Your task to perform on an android device: What's the weather? Image 0: 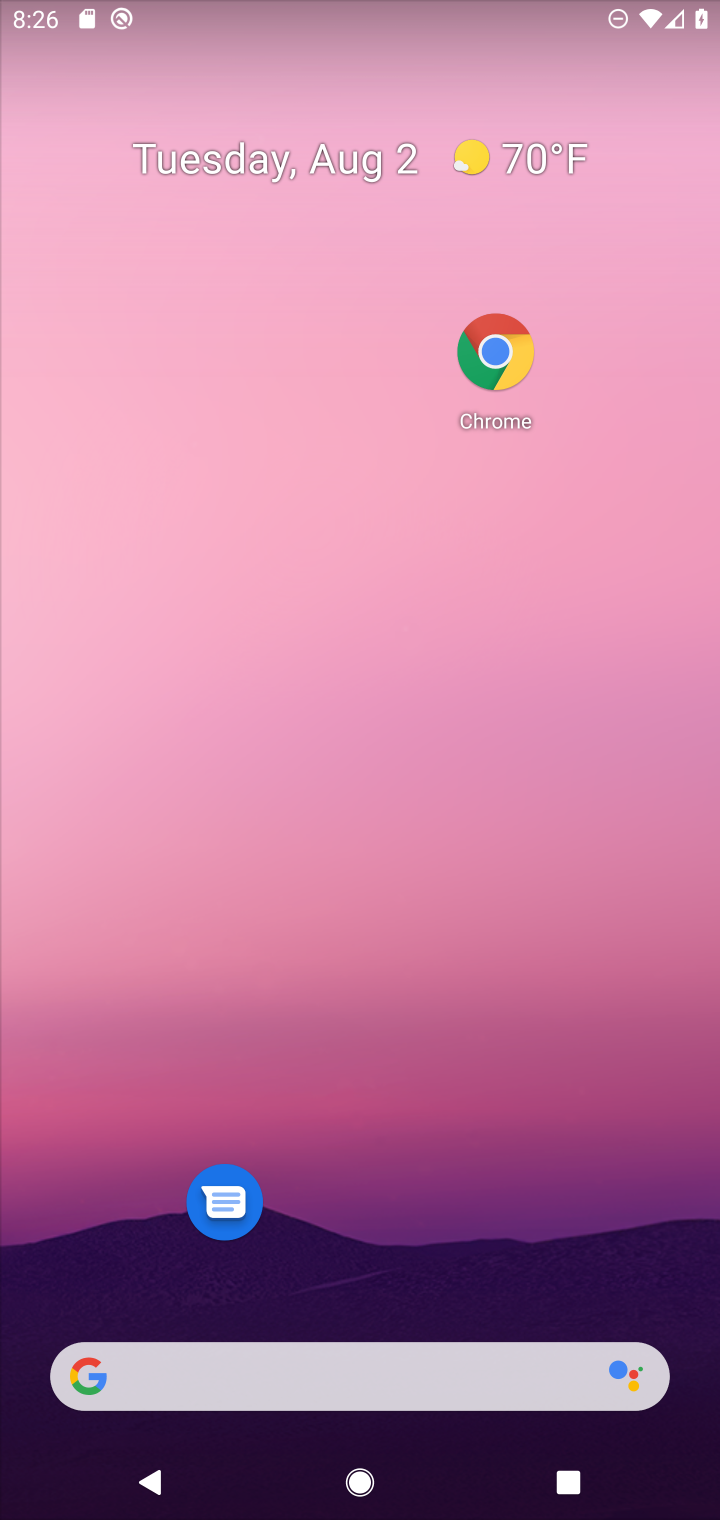
Step 0: click (152, 1369)
Your task to perform on an android device: What's the weather? Image 1: 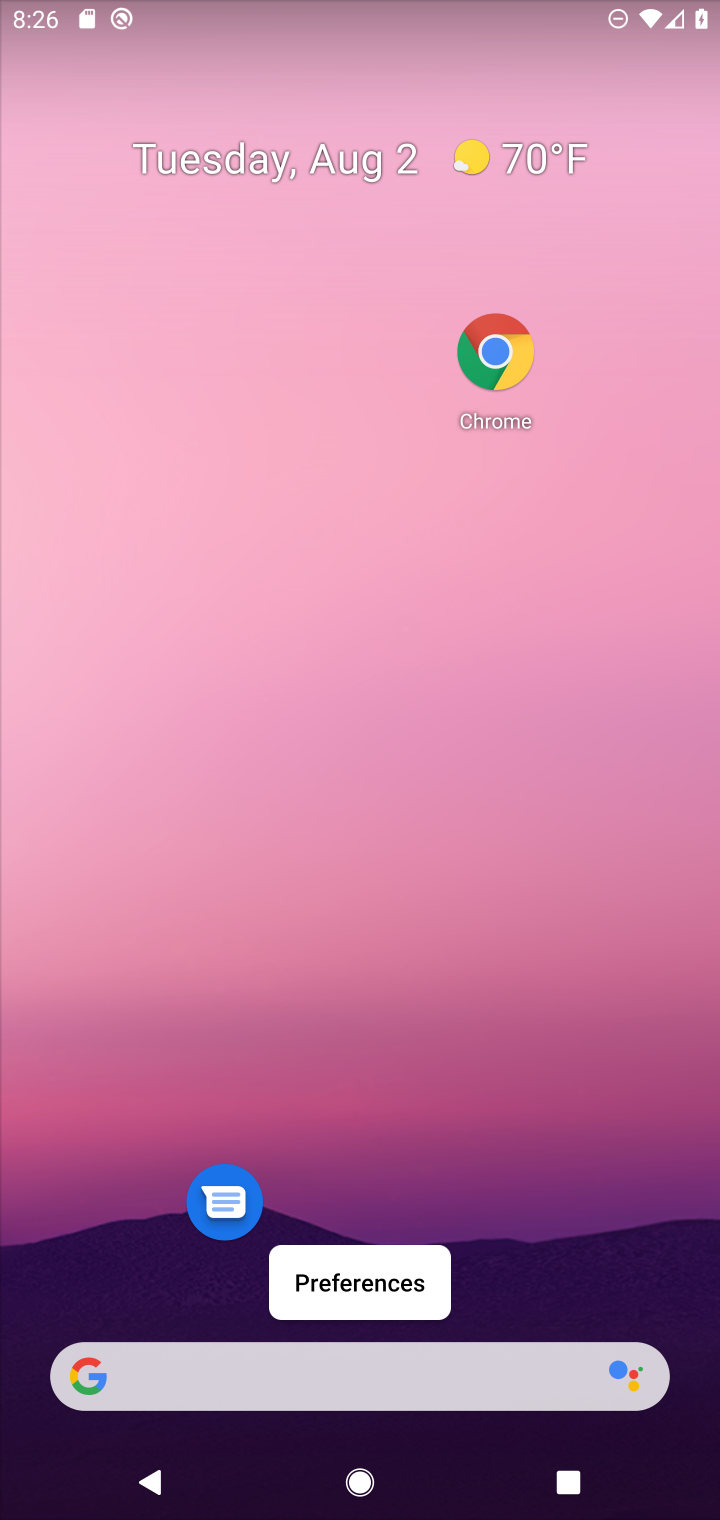
Step 1: click (186, 1388)
Your task to perform on an android device: What's the weather? Image 2: 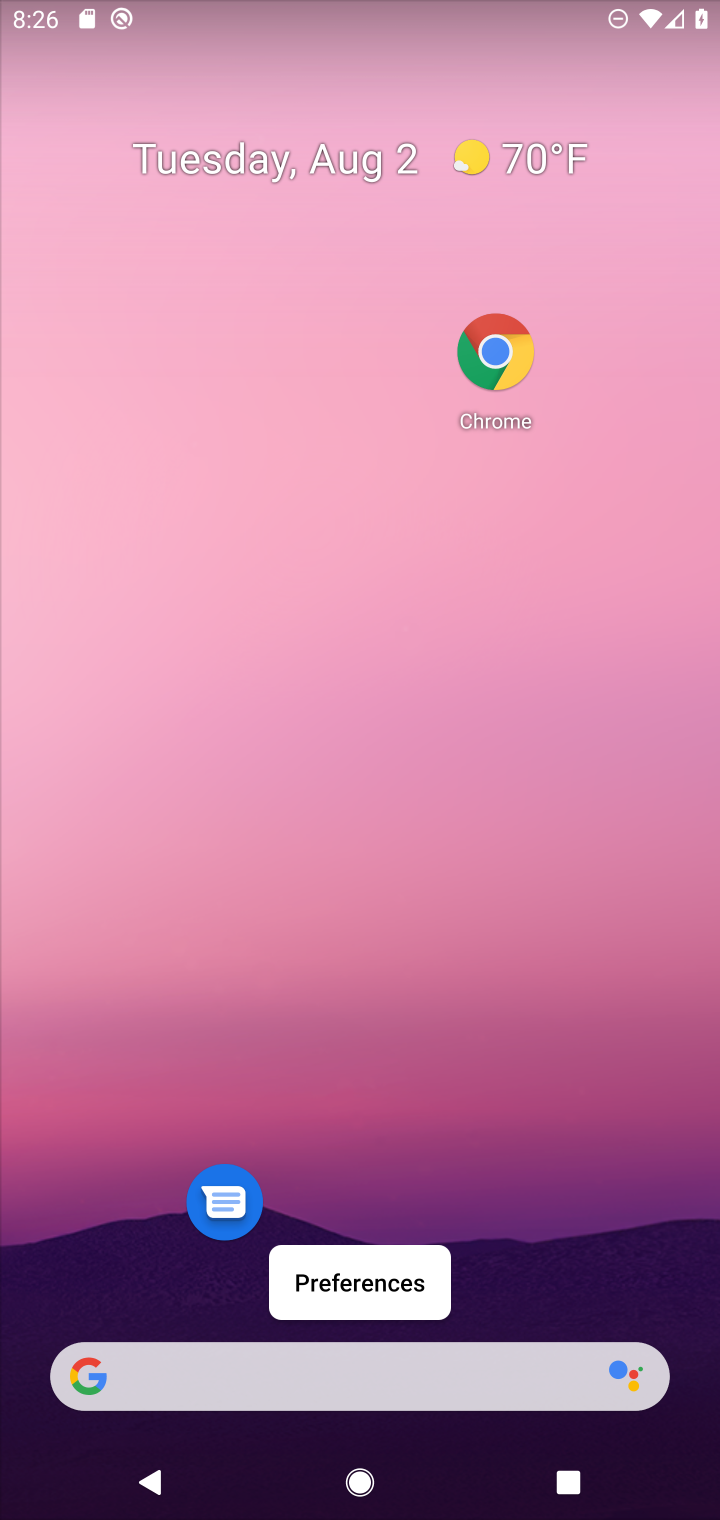
Step 2: click (169, 1371)
Your task to perform on an android device: What's the weather? Image 3: 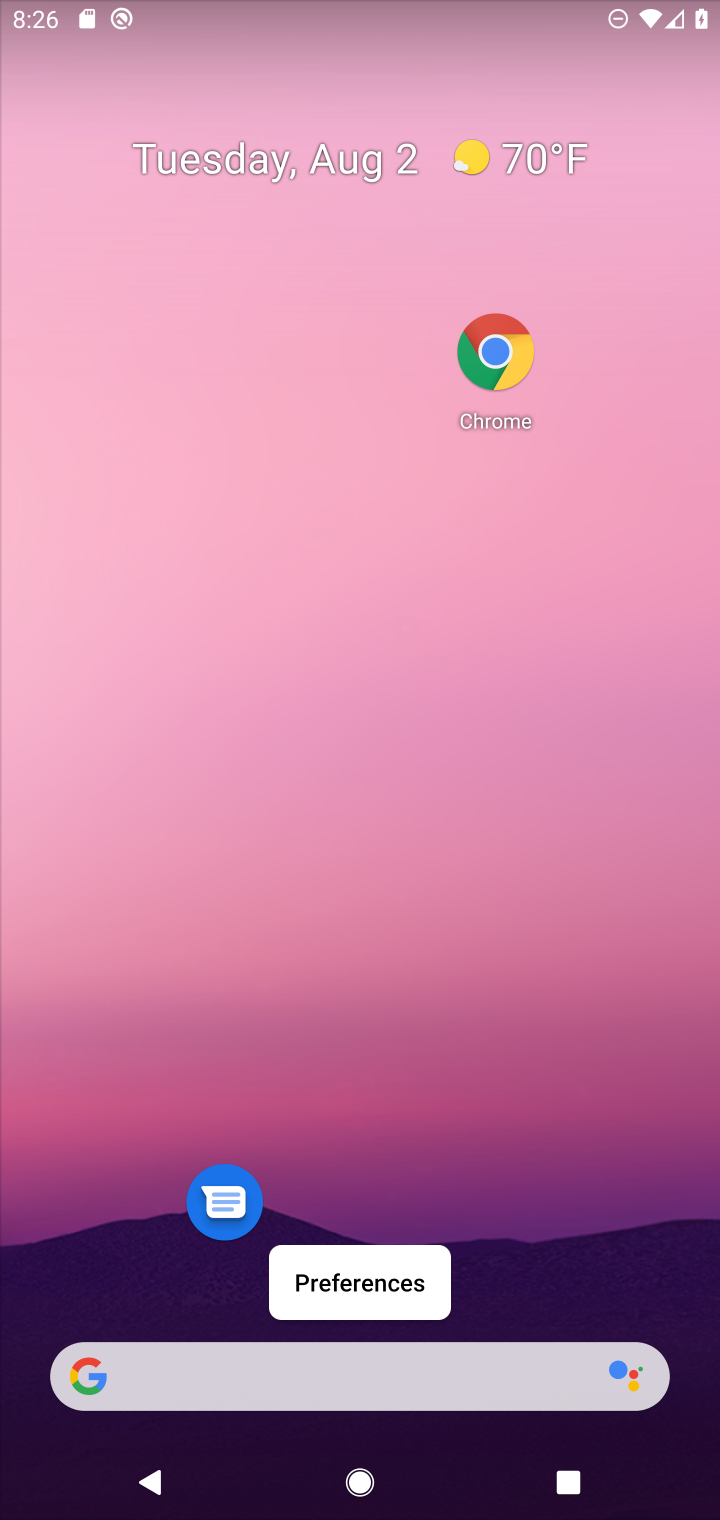
Step 3: click (197, 1388)
Your task to perform on an android device: What's the weather? Image 4: 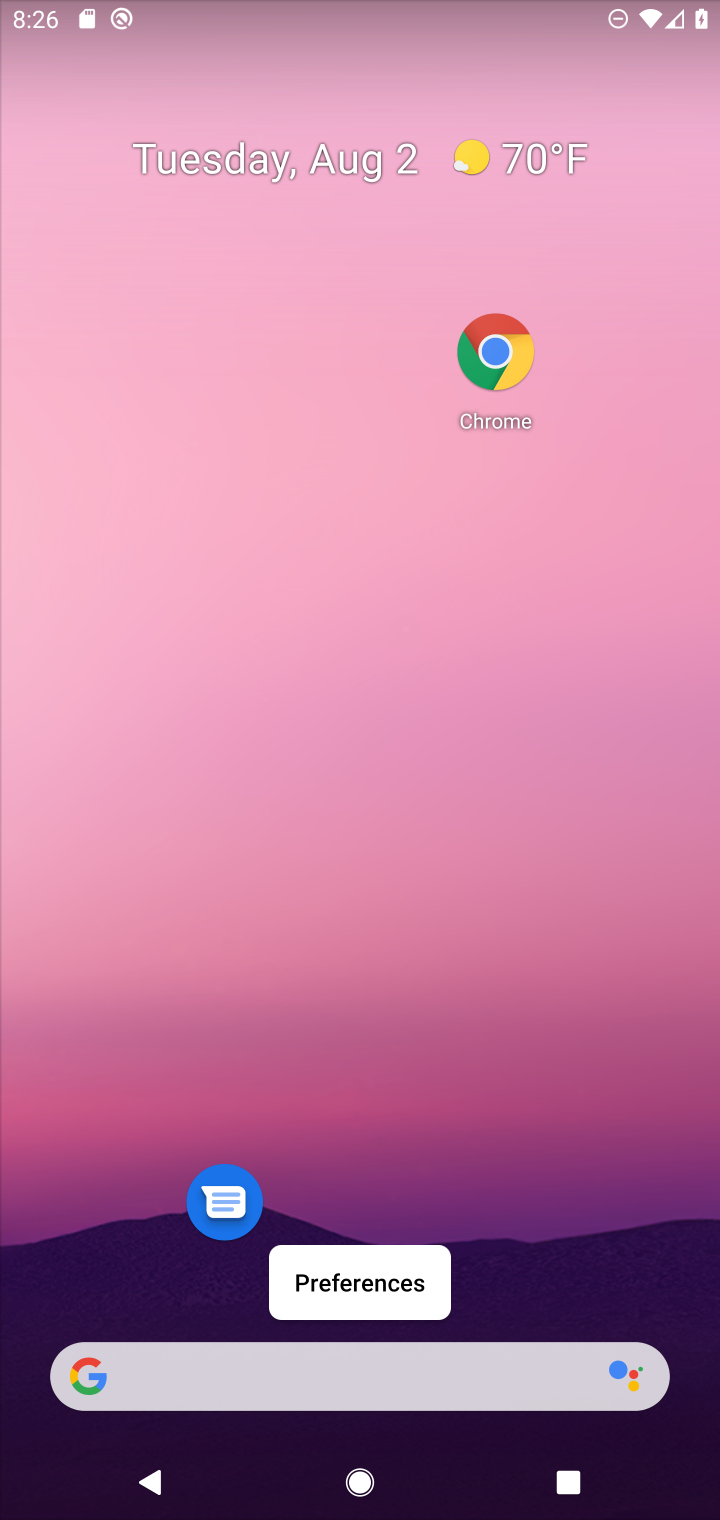
Step 4: click (160, 1382)
Your task to perform on an android device: What's the weather? Image 5: 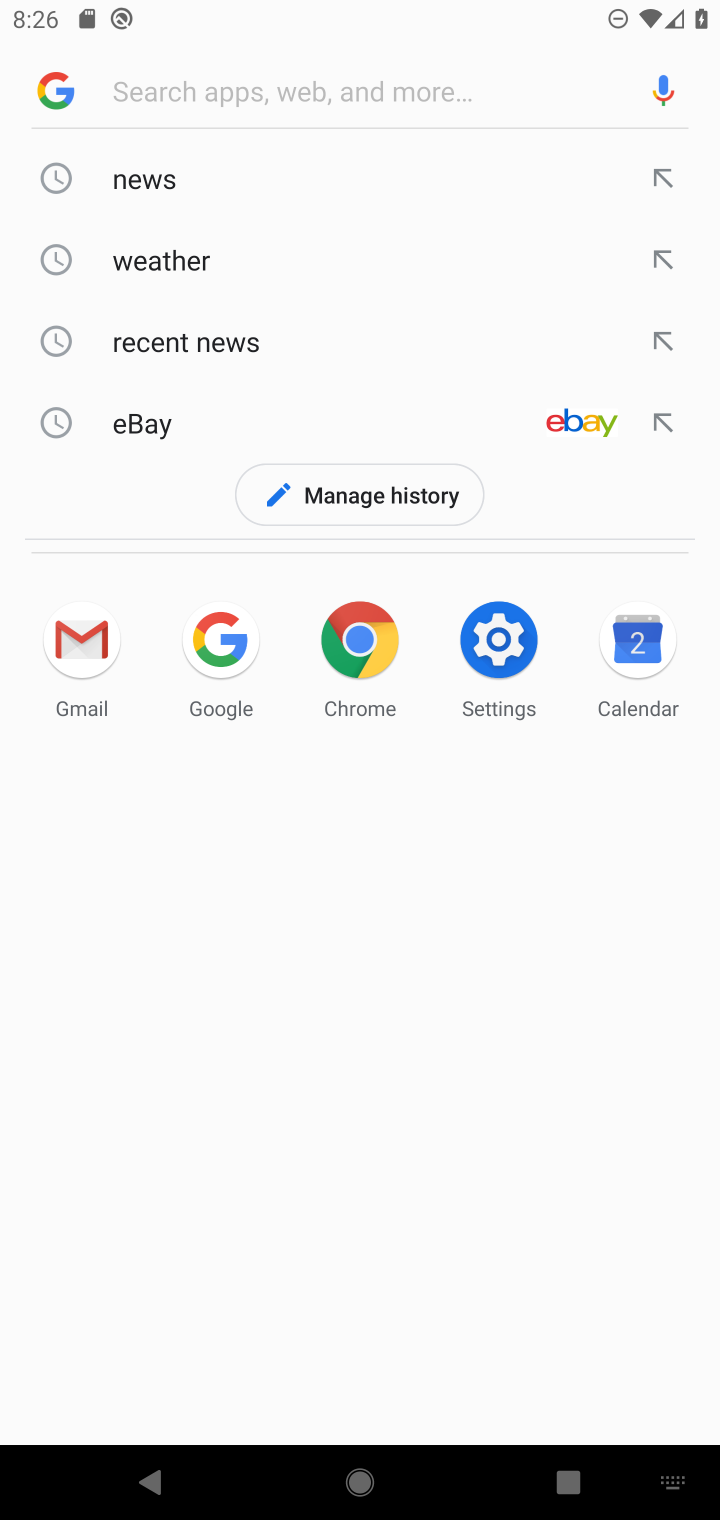
Step 5: click (188, 266)
Your task to perform on an android device: What's the weather? Image 6: 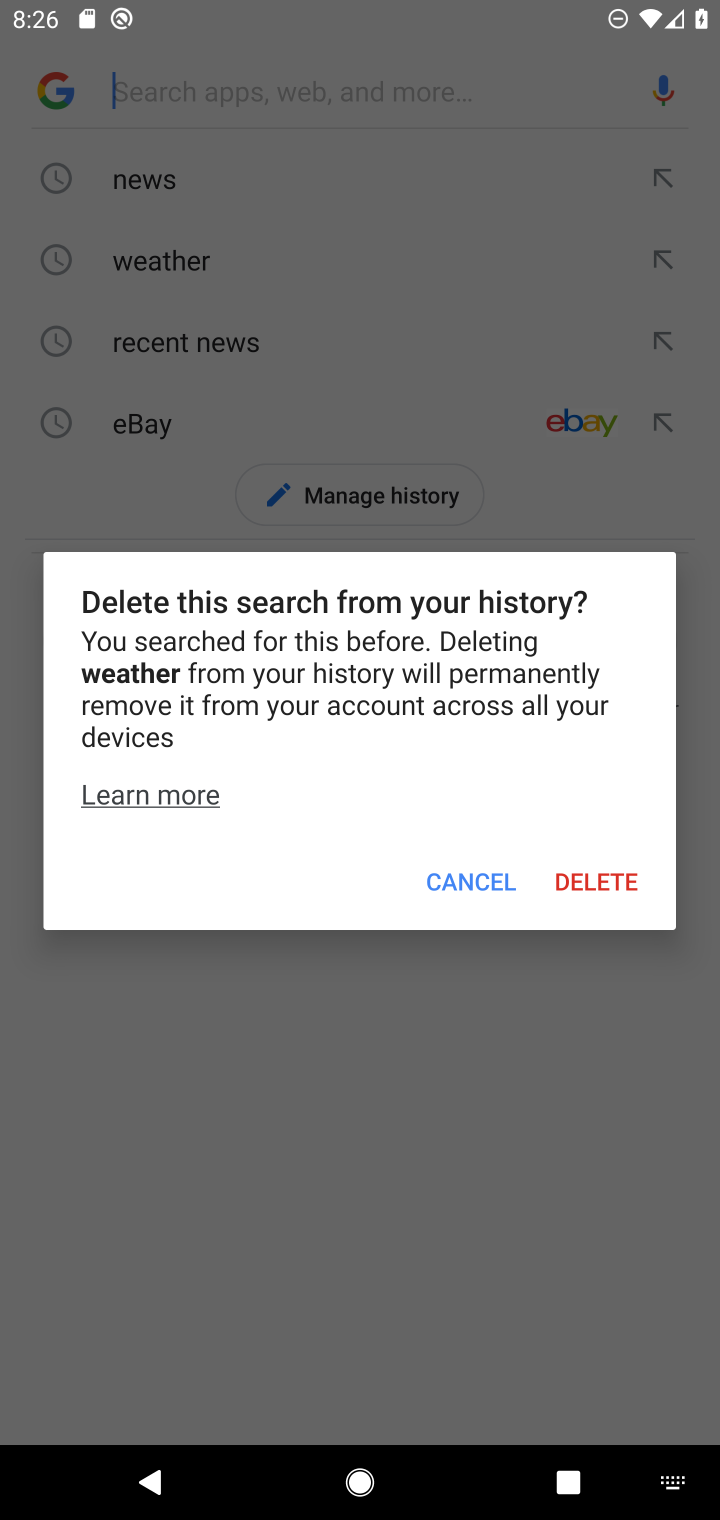
Step 6: click (185, 98)
Your task to perform on an android device: What's the weather? Image 7: 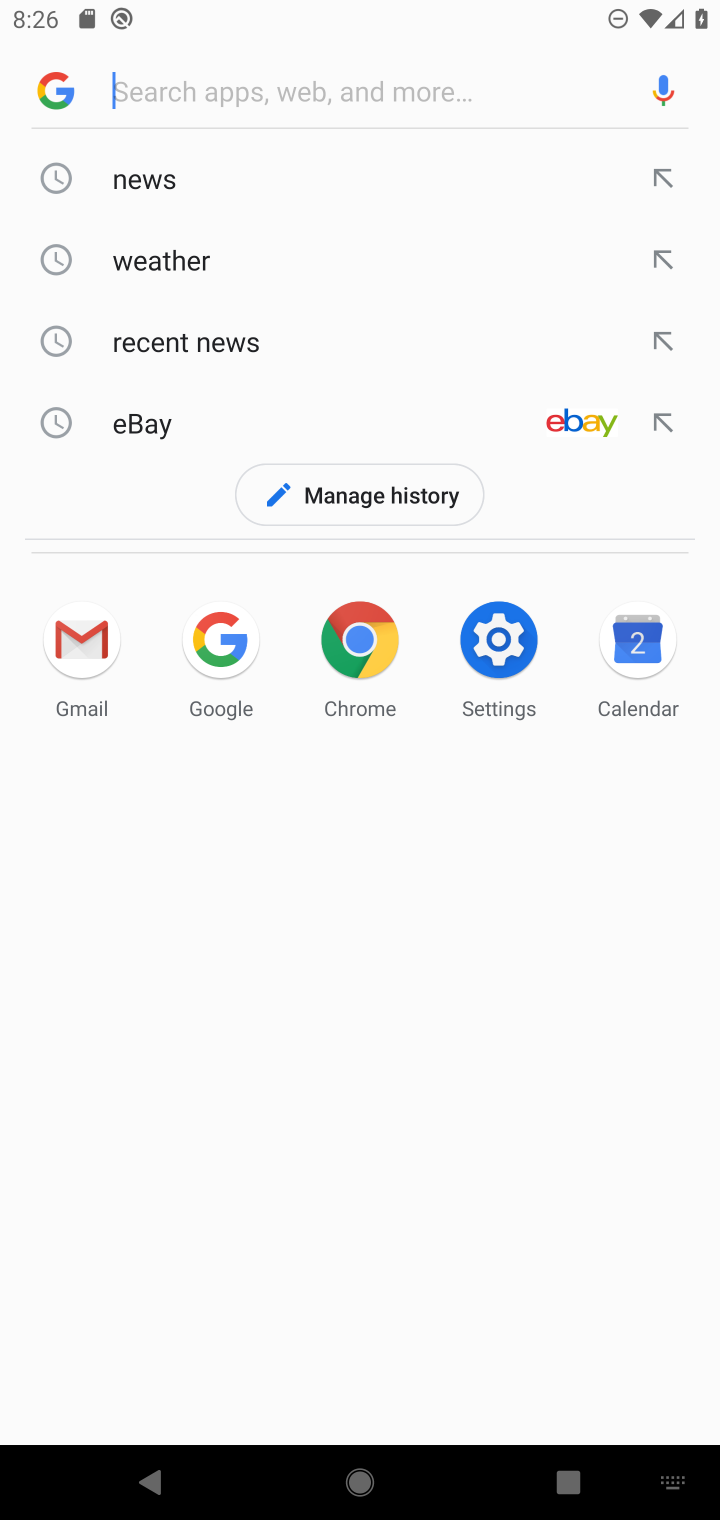
Step 7: click (156, 279)
Your task to perform on an android device: What's the weather? Image 8: 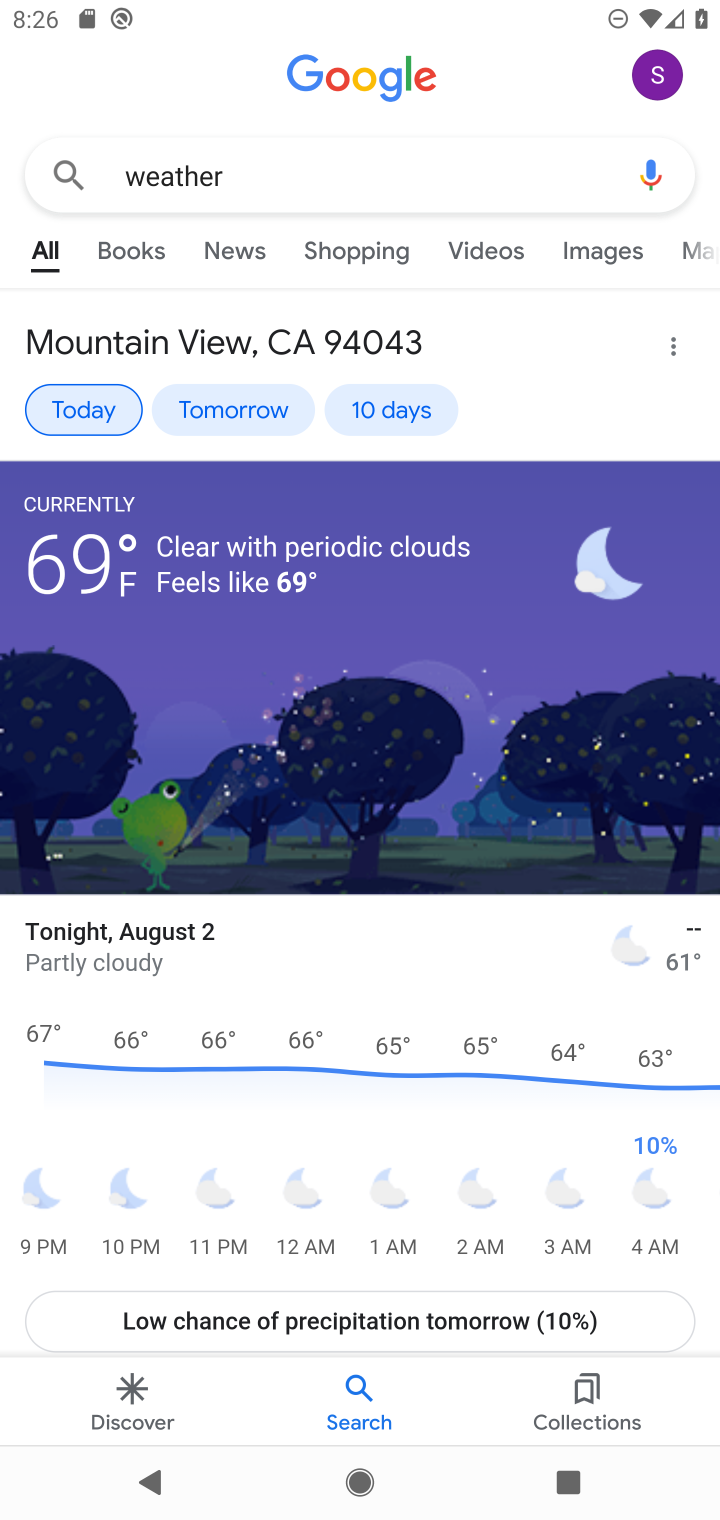
Step 8: task complete